Your task to perform on an android device: Search for a coffee table on Crate & Barrel Image 0: 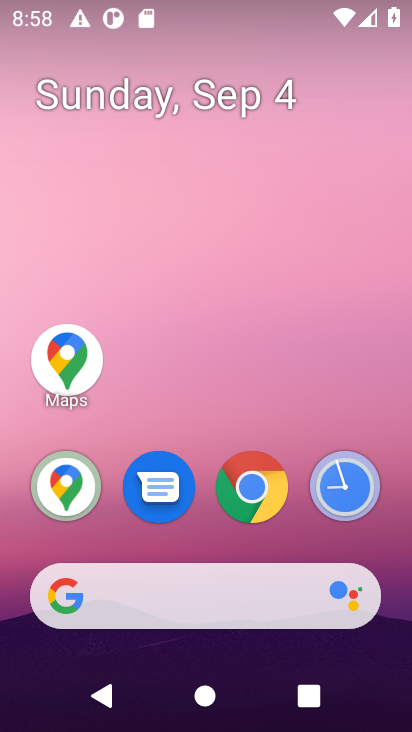
Step 0: click (61, 494)
Your task to perform on an android device: Search for a coffee table on Crate & Barrel Image 1: 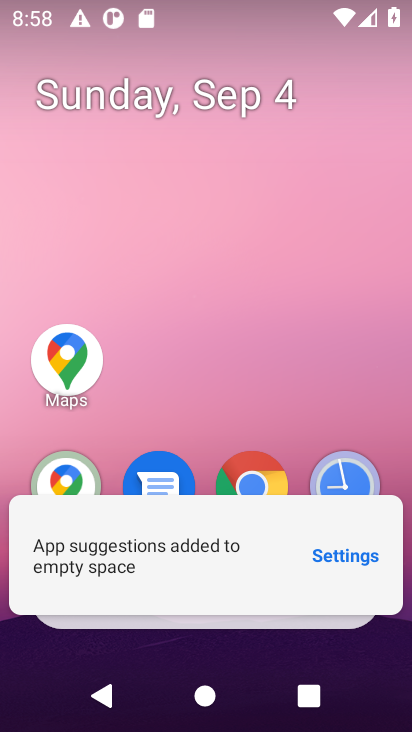
Step 1: click (61, 494)
Your task to perform on an android device: Search for a coffee table on Crate & Barrel Image 2: 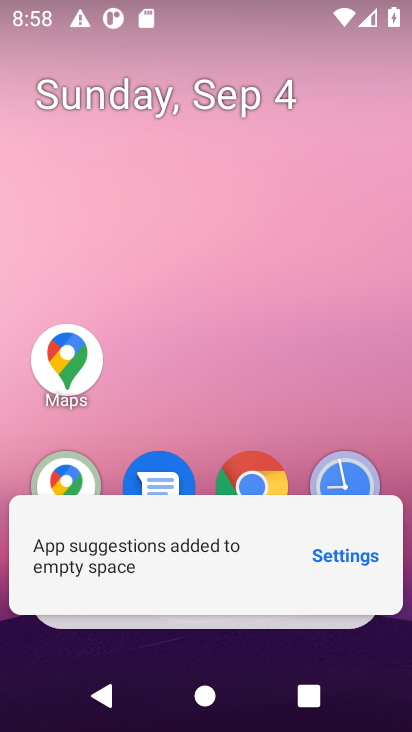
Step 2: click (61, 494)
Your task to perform on an android device: Search for a coffee table on Crate & Barrel Image 3: 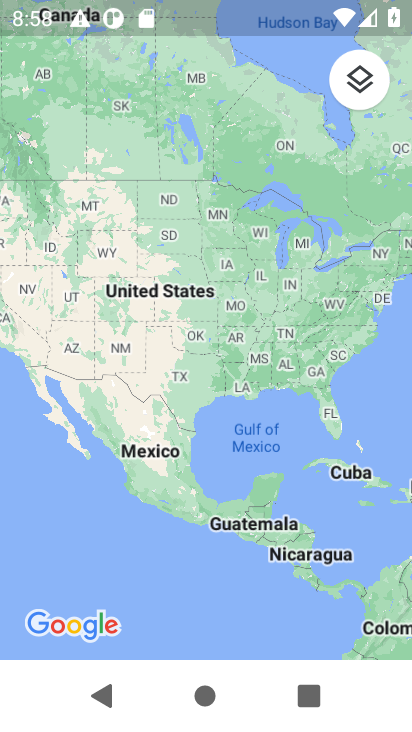
Step 3: task complete